Your task to perform on an android device: Open battery settings Image 0: 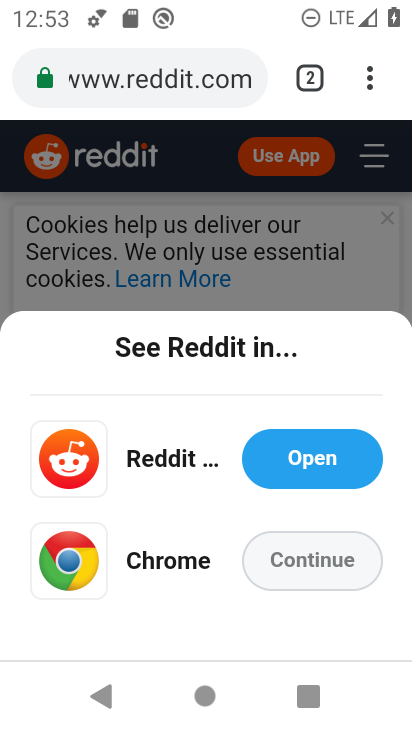
Step 0: press home button
Your task to perform on an android device: Open battery settings Image 1: 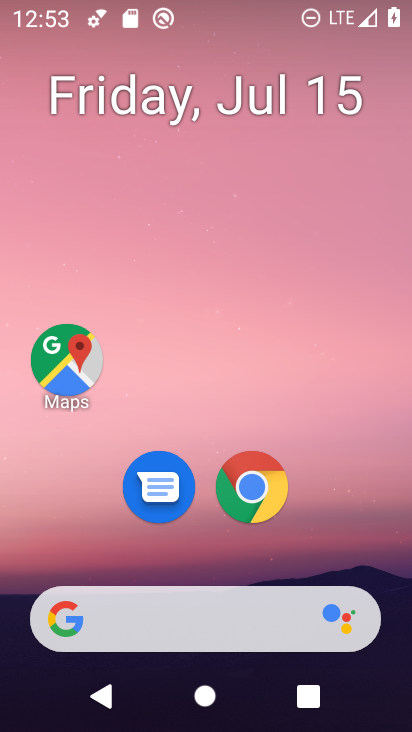
Step 1: drag from (249, 637) to (296, 145)
Your task to perform on an android device: Open battery settings Image 2: 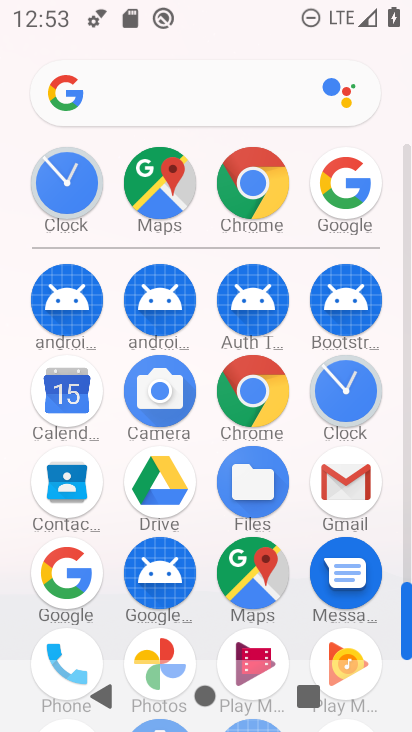
Step 2: drag from (234, 528) to (260, 117)
Your task to perform on an android device: Open battery settings Image 3: 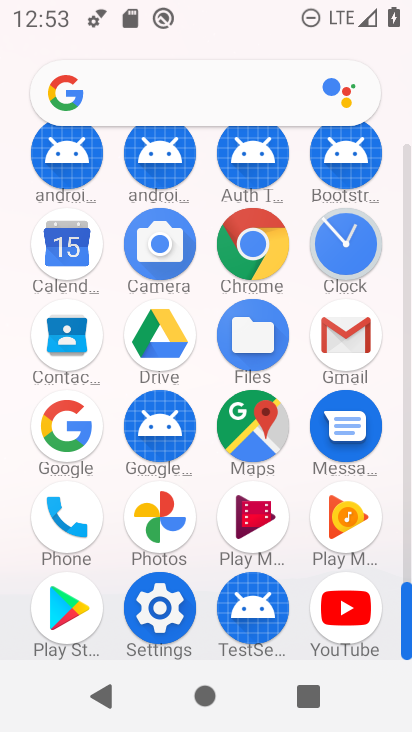
Step 3: click (177, 602)
Your task to perform on an android device: Open battery settings Image 4: 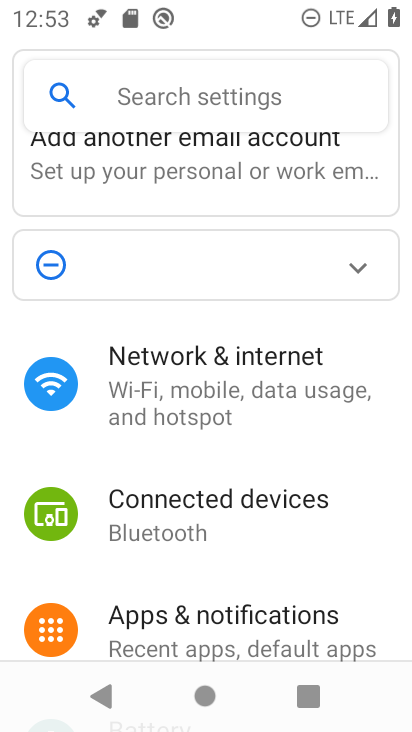
Step 4: drag from (238, 563) to (259, 119)
Your task to perform on an android device: Open battery settings Image 5: 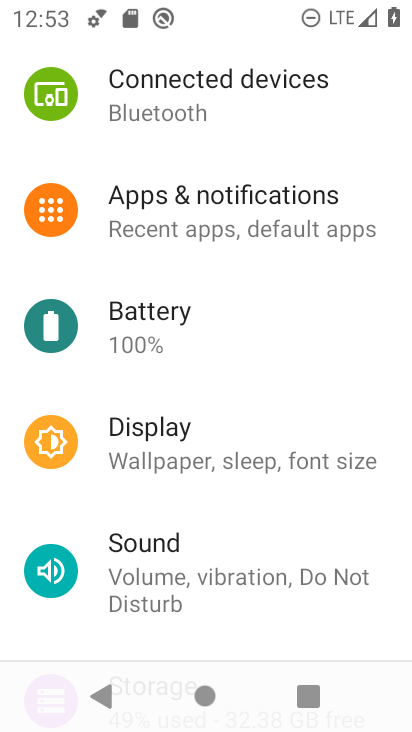
Step 5: click (199, 334)
Your task to perform on an android device: Open battery settings Image 6: 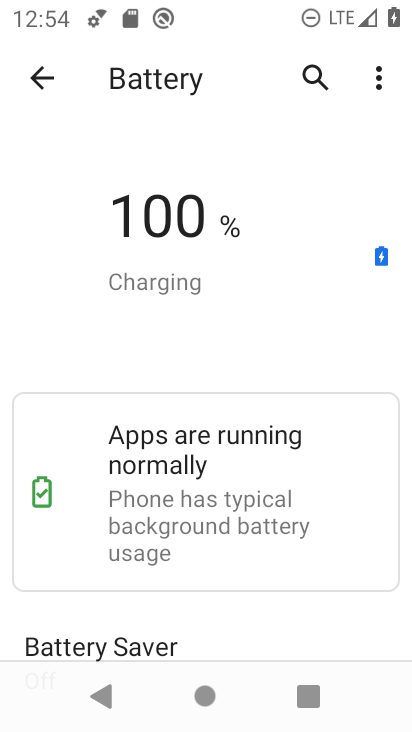
Step 6: task complete